Your task to perform on an android device: How do I get to the nearest electronics store? Image 0: 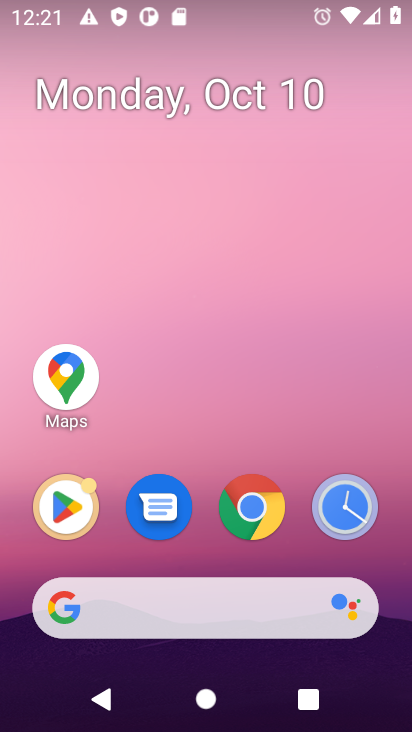
Step 0: press home button
Your task to perform on an android device: How do I get to the nearest electronics store? Image 1: 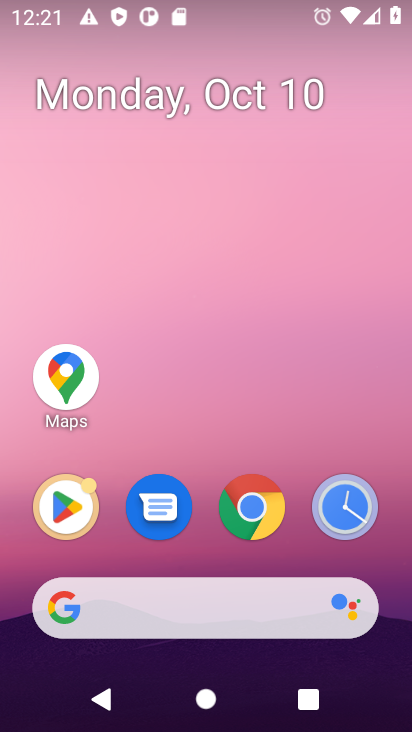
Step 1: click (216, 613)
Your task to perform on an android device: How do I get to the nearest electronics store? Image 2: 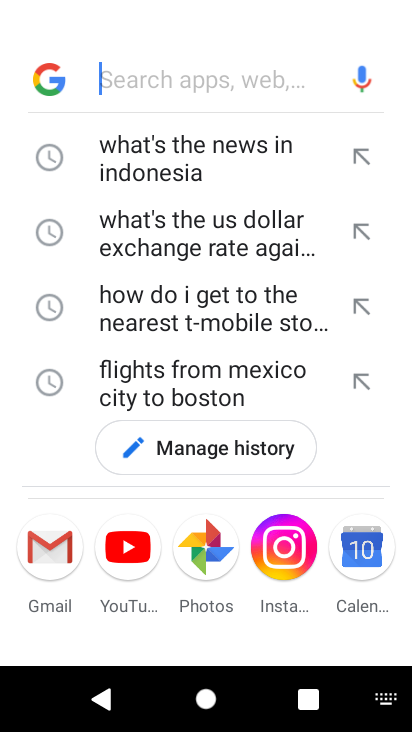
Step 2: type "How do I get to the nearest electronics store?"
Your task to perform on an android device: How do I get to the nearest electronics store? Image 3: 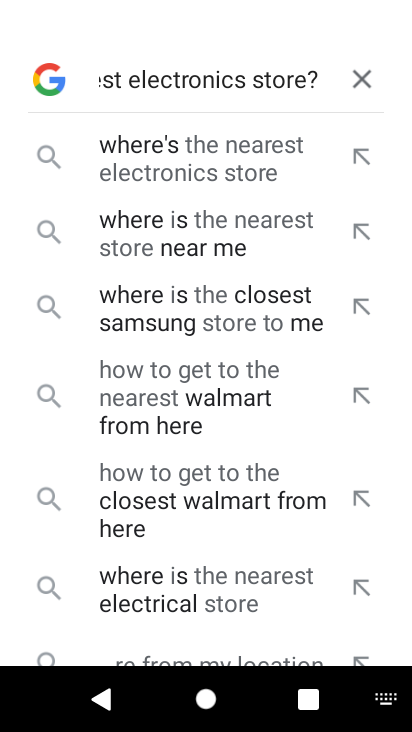
Step 3: press enter
Your task to perform on an android device: How do I get to the nearest electronics store? Image 4: 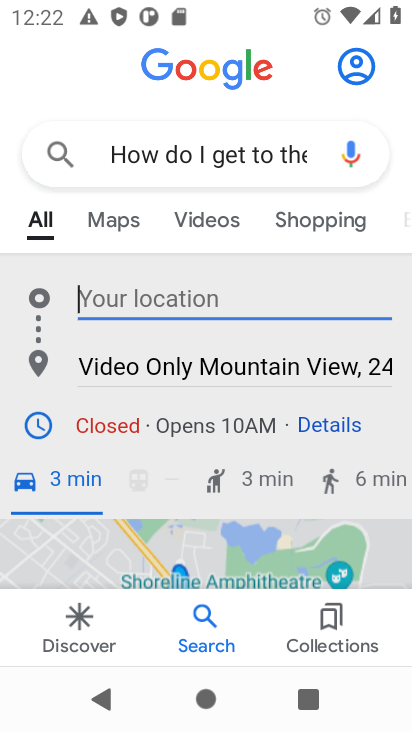
Step 4: task complete